Your task to perform on an android device: change keyboard looks Image 0: 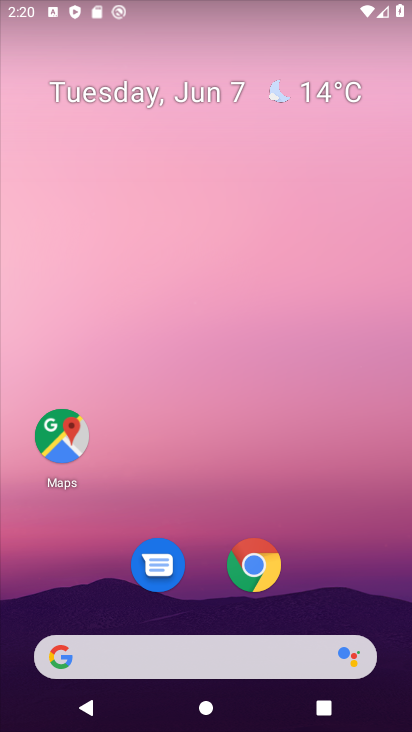
Step 0: drag from (312, 642) to (352, 0)
Your task to perform on an android device: change keyboard looks Image 1: 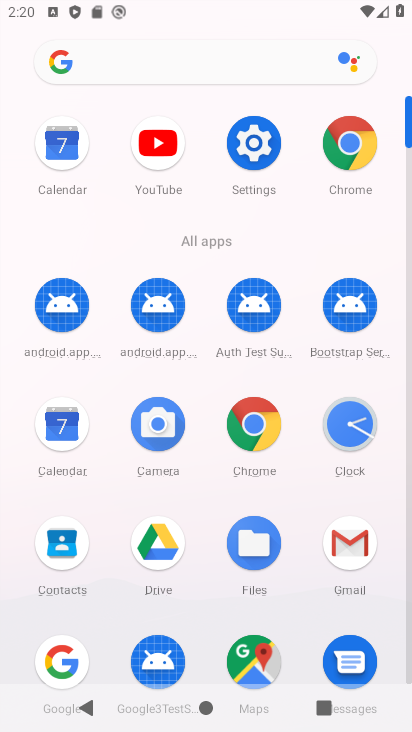
Step 1: press home button
Your task to perform on an android device: change keyboard looks Image 2: 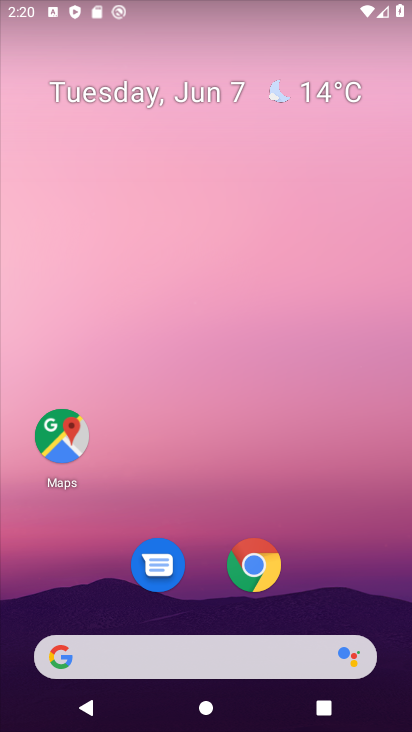
Step 2: drag from (258, 663) to (307, 110)
Your task to perform on an android device: change keyboard looks Image 3: 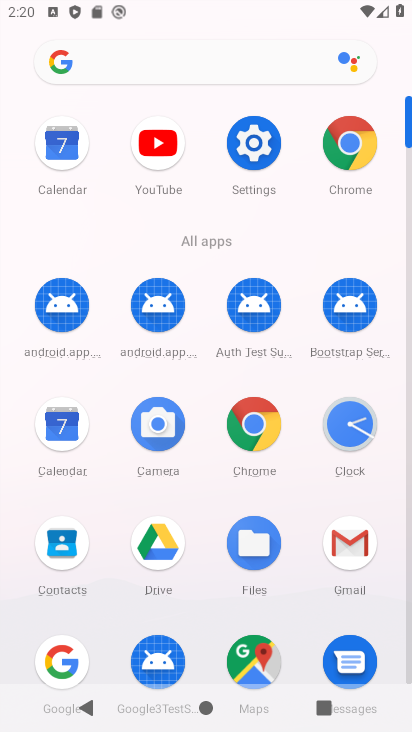
Step 3: click (253, 143)
Your task to perform on an android device: change keyboard looks Image 4: 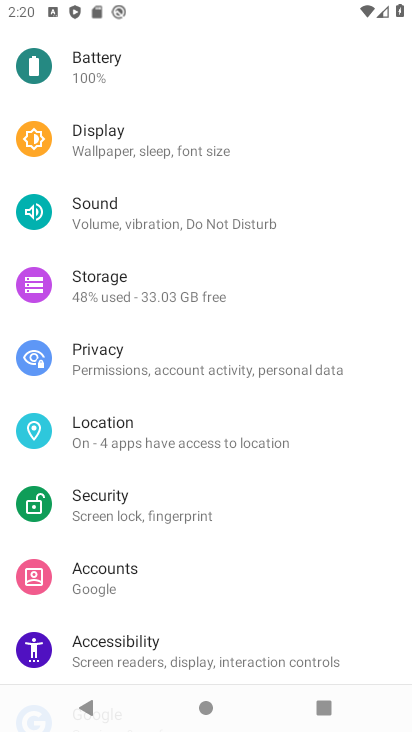
Step 4: drag from (274, 643) to (276, 84)
Your task to perform on an android device: change keyboard looks Image 5: 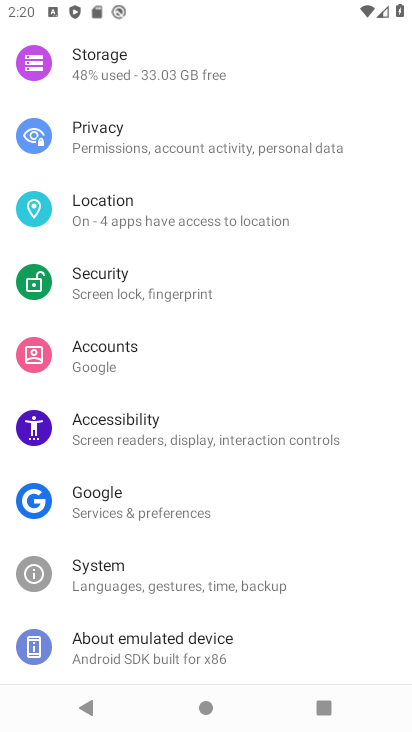
Step 5: click (228, 647)
Your task to perform on an android device: change keyboard looks Image 6: 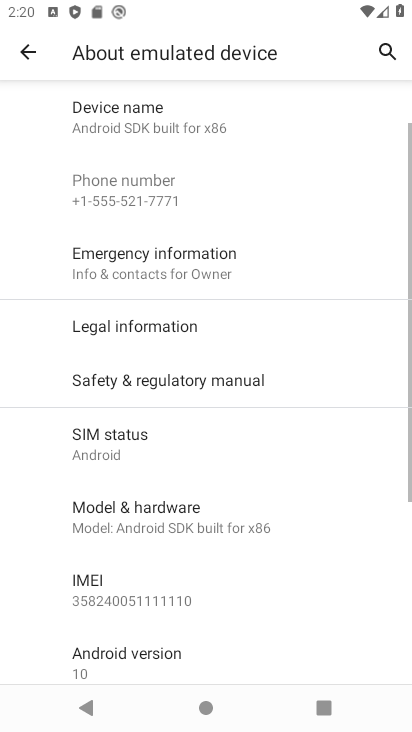
Step 6: press back button
Your task to perform on an android device: change keyboard looks Image 7: 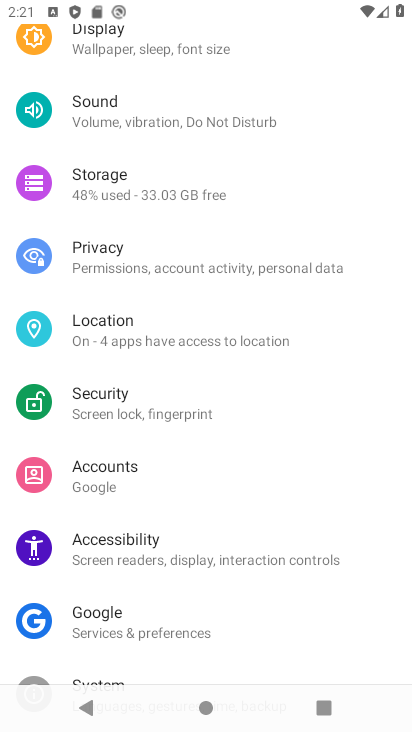
Step 7: drag from (168, 661) to (199, 506)
Your task to perform on an android device: change keyboard looks Image 8: 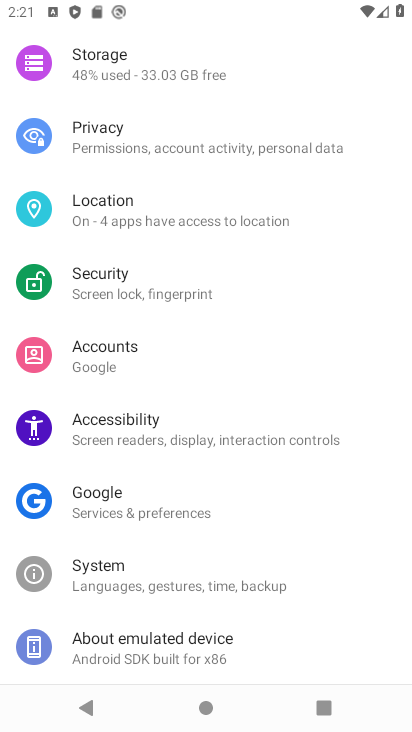
Step 8: click (169, 569)
Your task to perform on an android device: change keyboard looks Image 9: 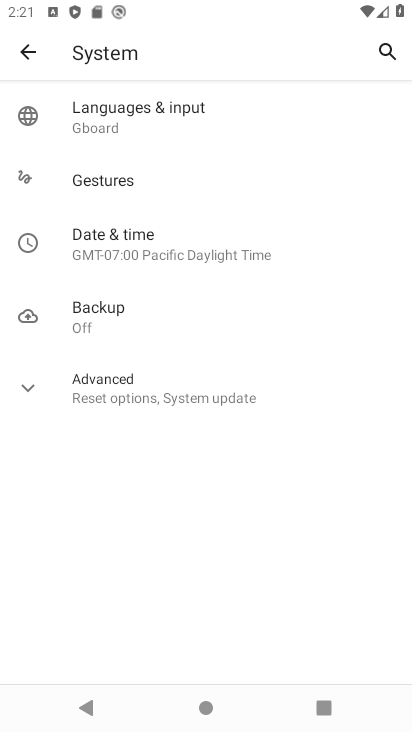
Step 9: click (175, 105)
Your task to perform on an android device: change keyboard looks Image 10: 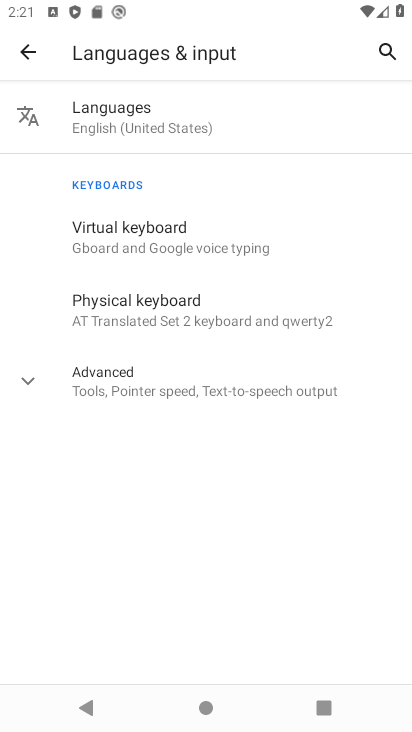
Step 10: click (148, 231)
Your task to perform on an android device: change keyboard looks Image 11: 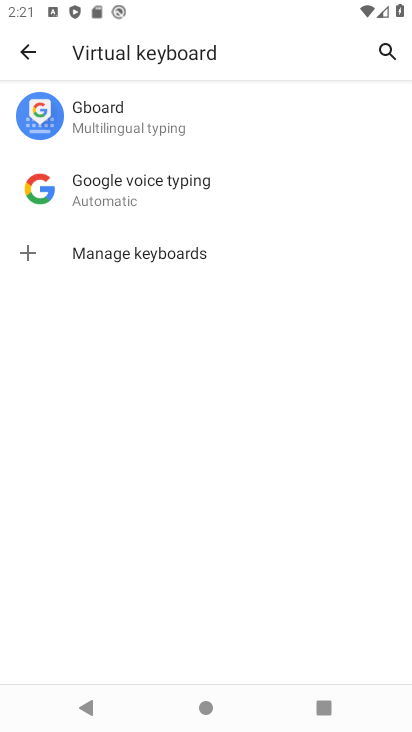
Step 11: click (200, 126)
Your task to perform on an android device: change keyboard looks Image 12: 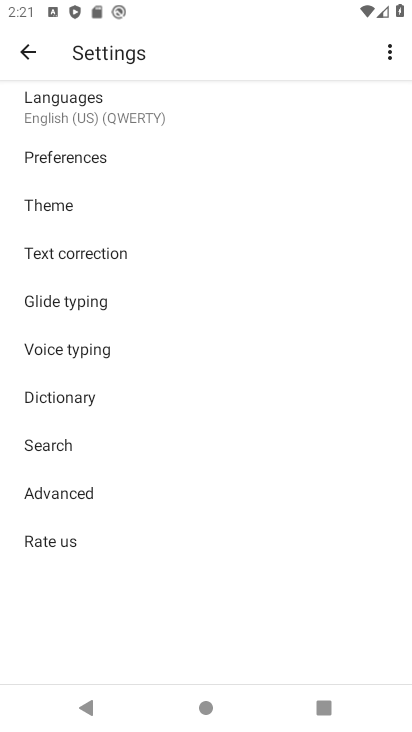
Step 12: click (88, 207)
Your task to perform on an android device: change keyboard looks Image 13: 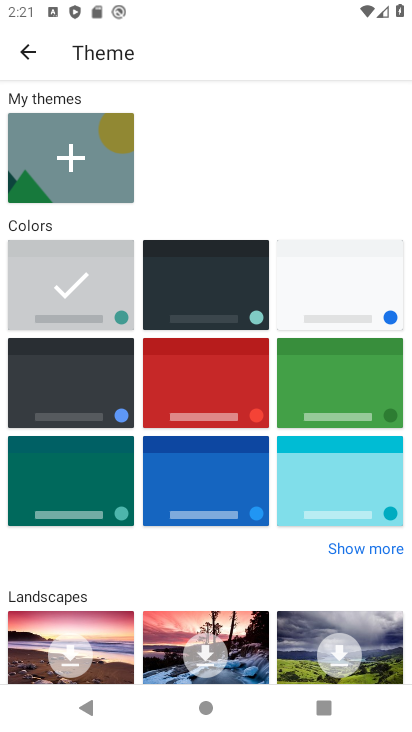
Step 13: click (236, 368)
Your task to perform on an android device: change keyboard looks Image 14: 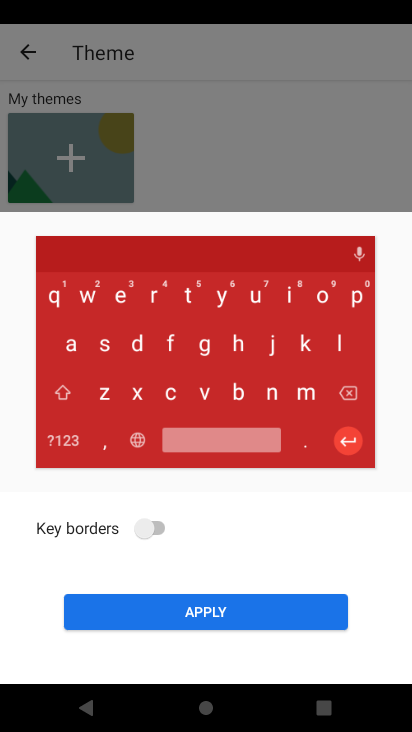
Step 14: click (251, 620)
Your task to perform on an android device: change keyboard looks Image 15: 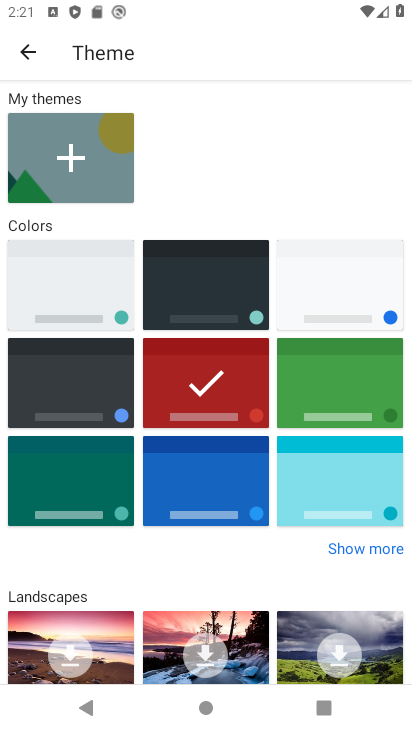
Step 15: task complete